Your task to perform on an android device: stop showing notifications on the lock screen Image 0: 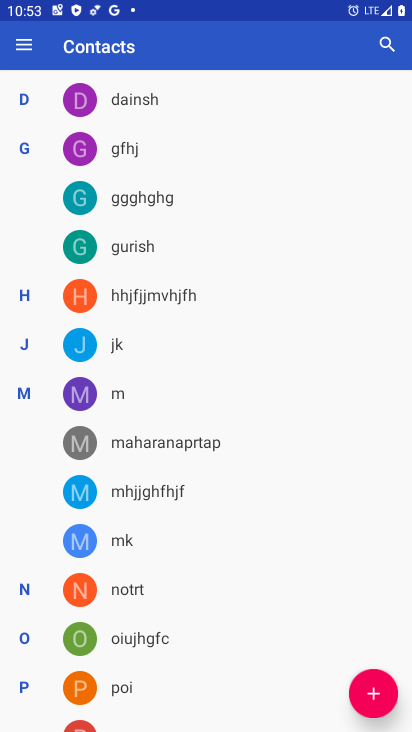
Step 0: press home button
Your task to perform on an android device: stop showing notifications on the lock screen Image 1: 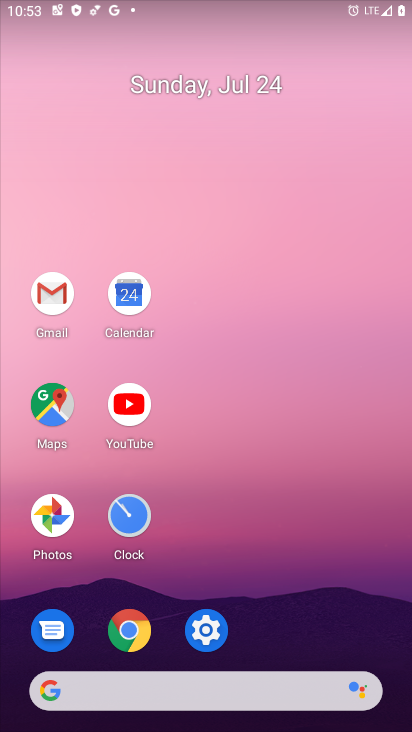
Step 1: click (207, 628)
Your task to perform on an android device: stop showing notifications on the lock screen Image 2: 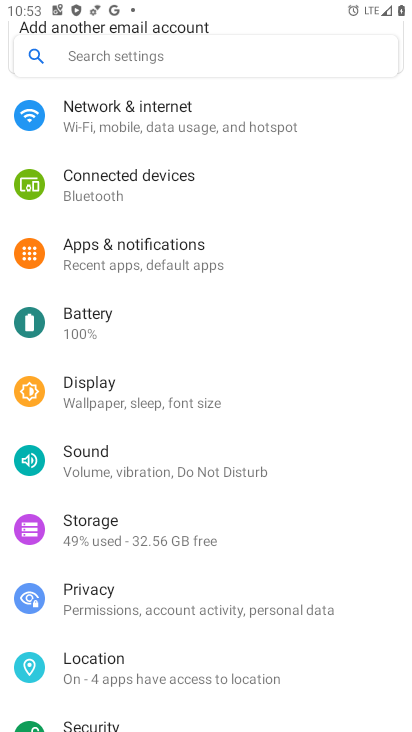
Step 2: click (115, 238)
Your task to perform on an android device: stop showing notifications on the lock screen Image 3: 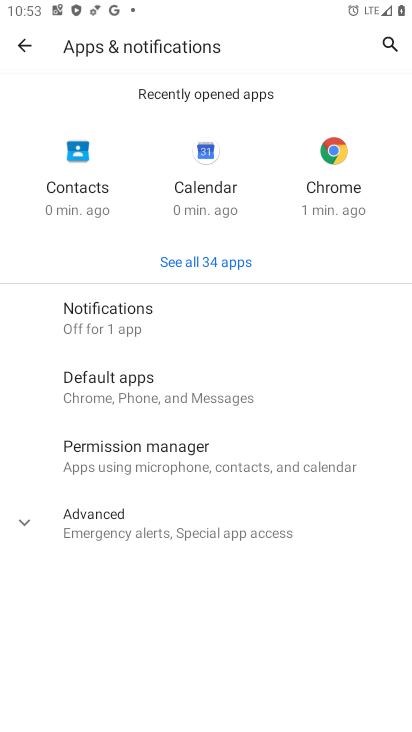
Step 3: click (96, 314)
Your task to perform on an android device: stop showing notifications on the lock screen Image 4: 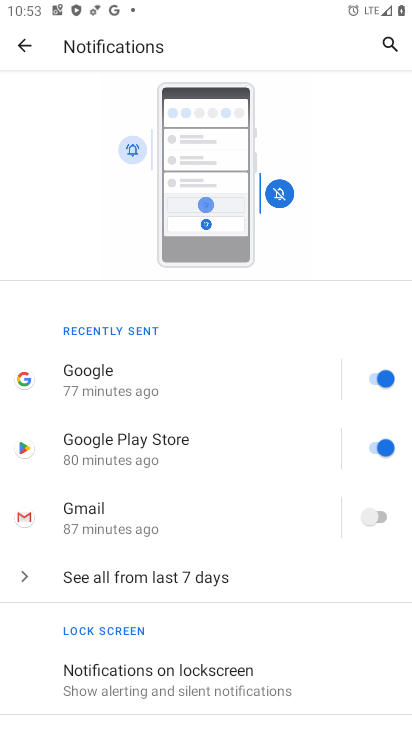
Step 4: click (164, 668)
Your task to perform on an android device: stop showing notifications on the lock screen Image 5: 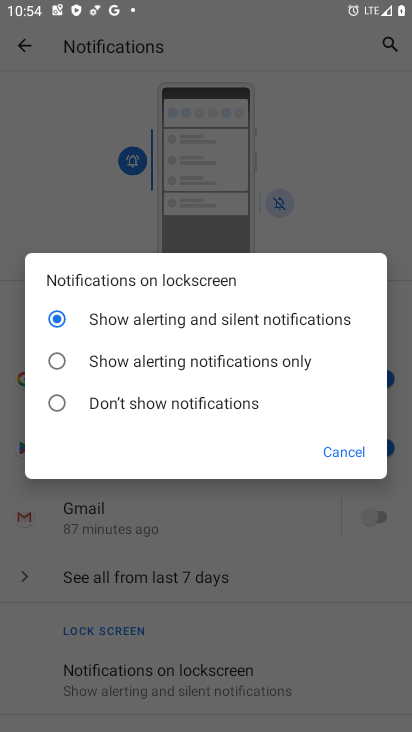
Step 5: click (55, 399)
Your task to perform on an android device: stop showing notifications on the lock screen Image 6: 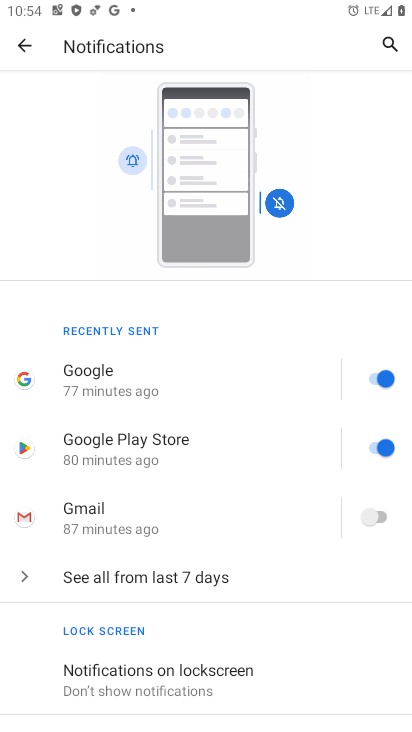
Step 6: task complete